Your task to perform on an android device: turn on wifi Image 0: 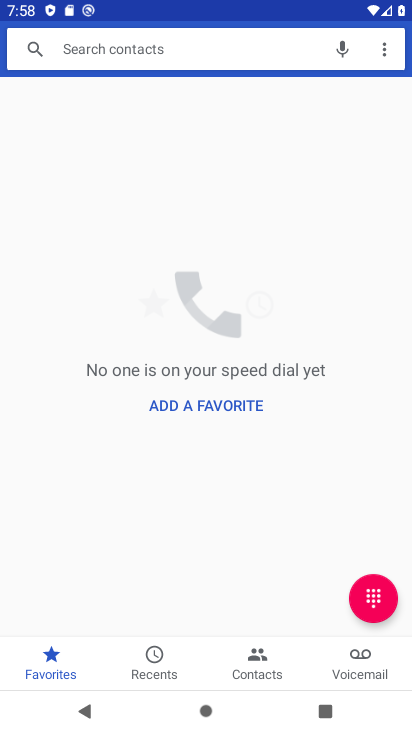
Step 0: press back button
Your task to perform on an android device: turn on wifi Image 1: 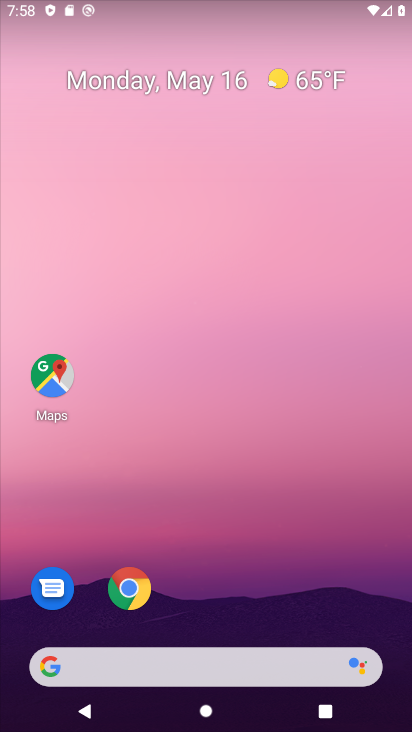
Step 1: drag from (308, 581) to (367, 124)
Your task to perform on an android device: turn on wifi Image 2: 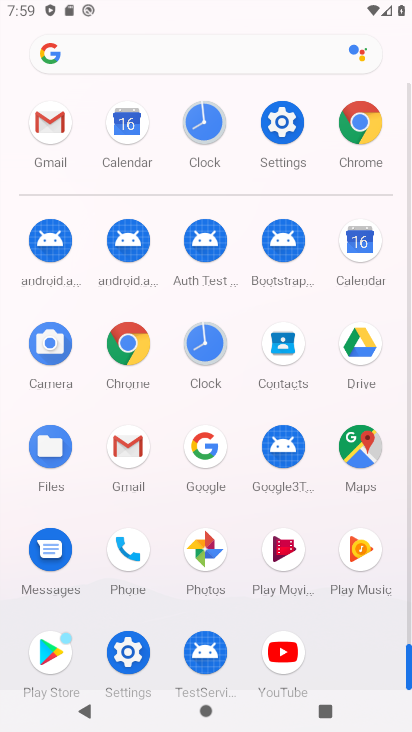
Step 2: click (284, 134)
Your task to perform on an android device: turn on wifi Image 3: 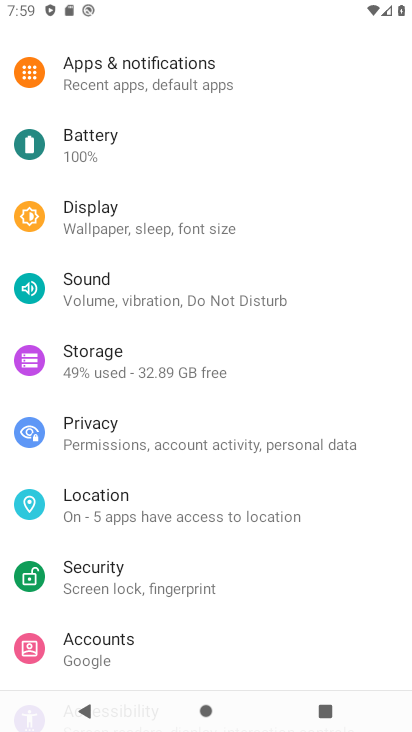
Step 3: drag from (322, 624) to (329, 466)
Your task to perform on an android device: turn on wifi Image 4: 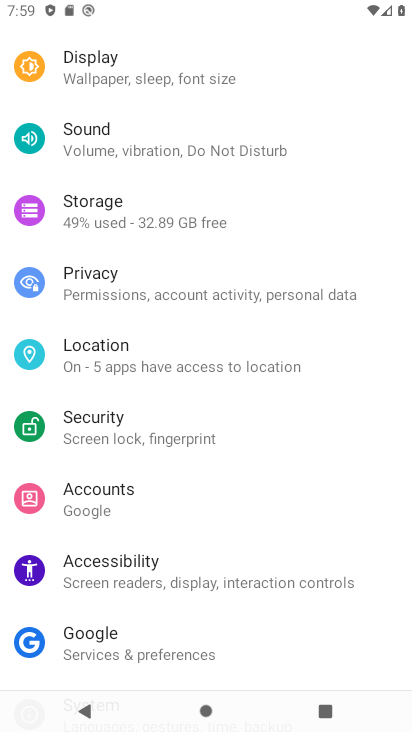
Step 4: drag from (348, 490) to (356, 383)
Your task to perform on an android device: turn on wifi Image 5: 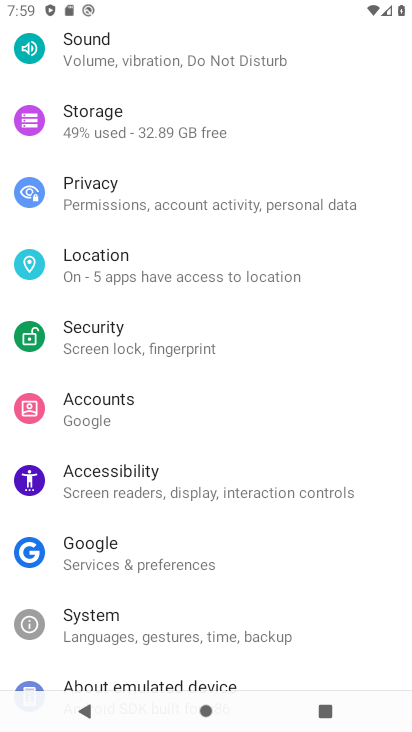
Step 5: drag from (324, 610) to (331, 449)
Your task to perform on an android device: turn on wifi Image 6: 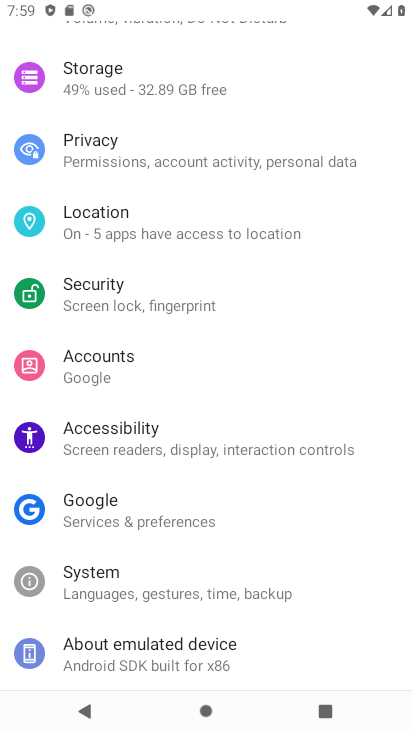
Step 6: drag from (350, 305) to (341, 505)
Your task to perform on an android device: turn on wifi Image 7: 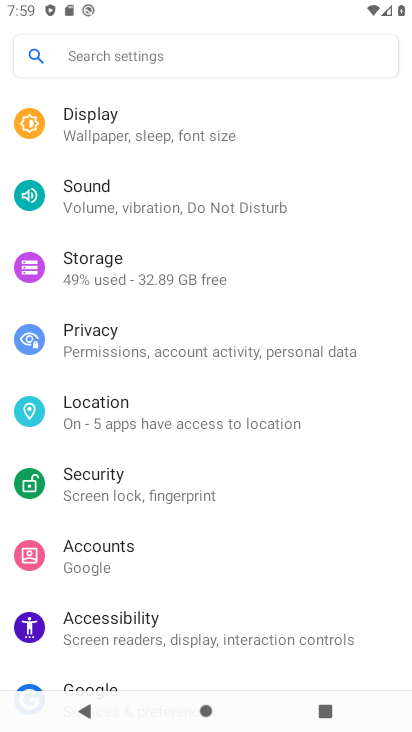
Step 7: drag from (358, 225) to (346, 447)
Your task to perform on an android device: turn on wifi Image 8: 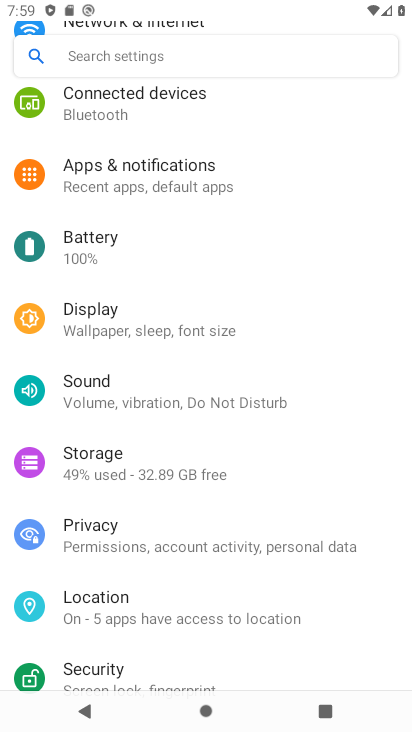
Step 8: drag from (330, 274) to (330, 413)
Your task to perform on an android device: turn on wifi Image 9: 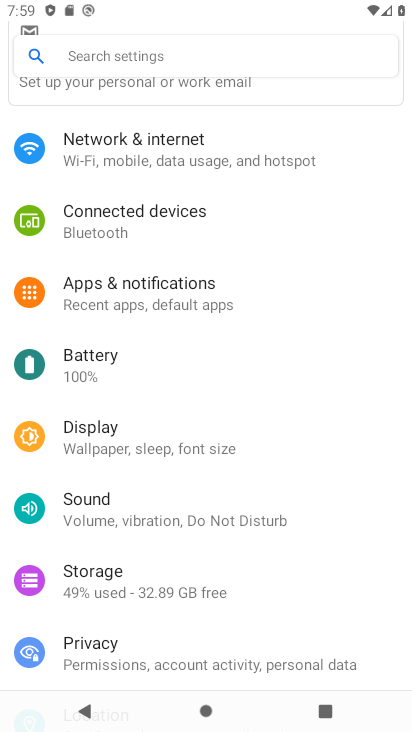
Step 9: click (183, 152)
Your task to perform on an android device: turn on wifi Image 10: 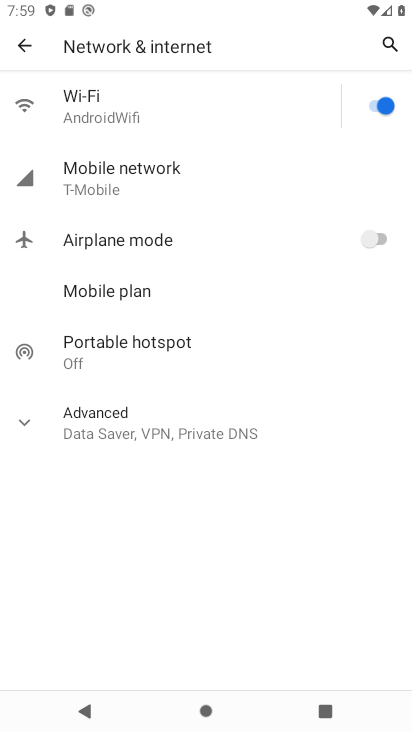
Step 10: task complete